Your task to perform on an android device: Show me recent news Image 0: 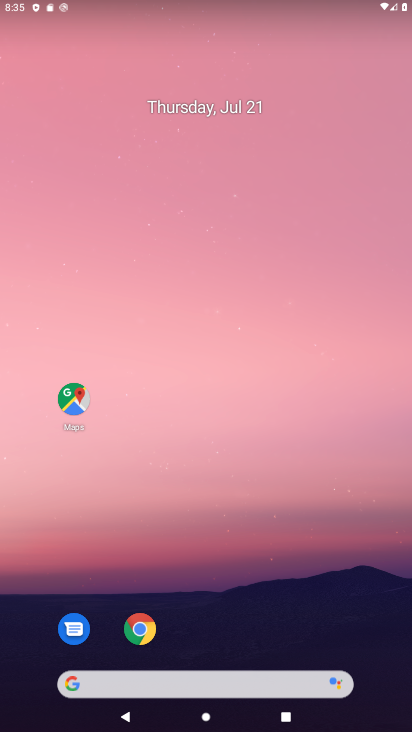
Step 0: click (283, 674)
Your task to perform on an android device: Show me recent news Image 1: 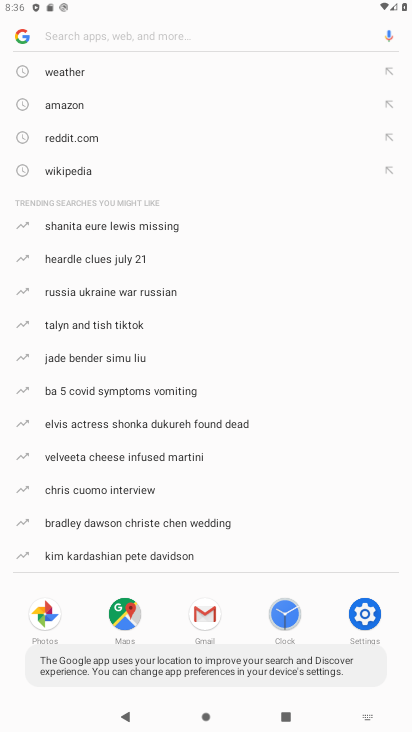
Step 1: click (31, 44)
Your task to perform on an android device: Show me recent news Image 2: 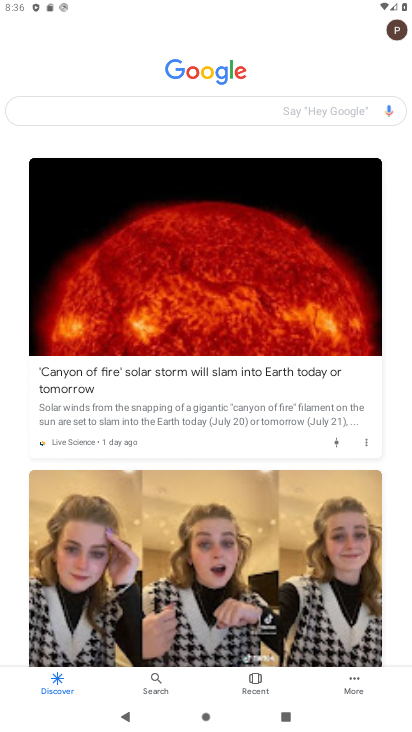
Step 2: task complete